Your task to perform on an android device: check data usage Image 0: 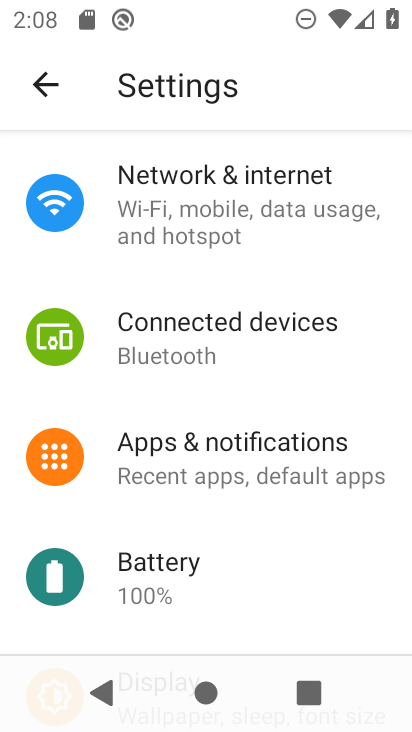
Step 0: click (217, 245)
Your task to perform on an android device: check data usage Image 1: 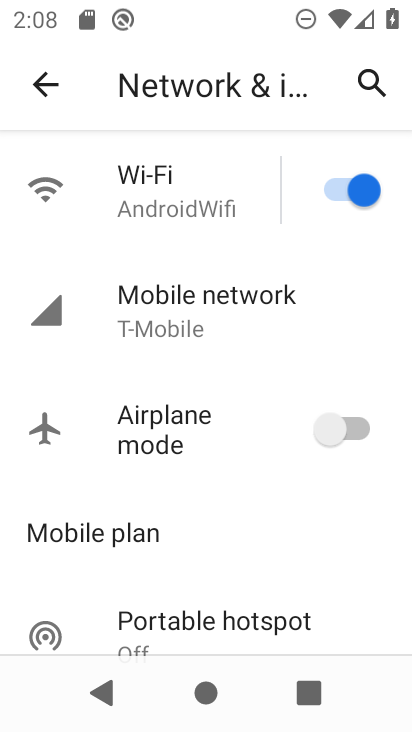
Step 1: click (243, 318)
Your task to perform on an android device: check data usage Image 2: 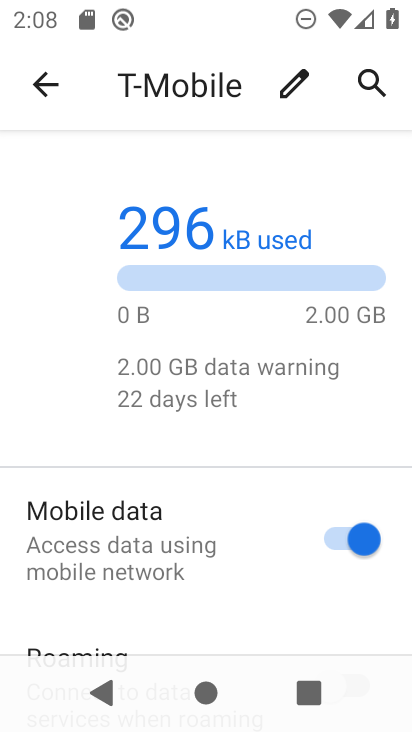
Step 2: task complete